Your task to perform on an android device: Go to Wikipedia Image 0: 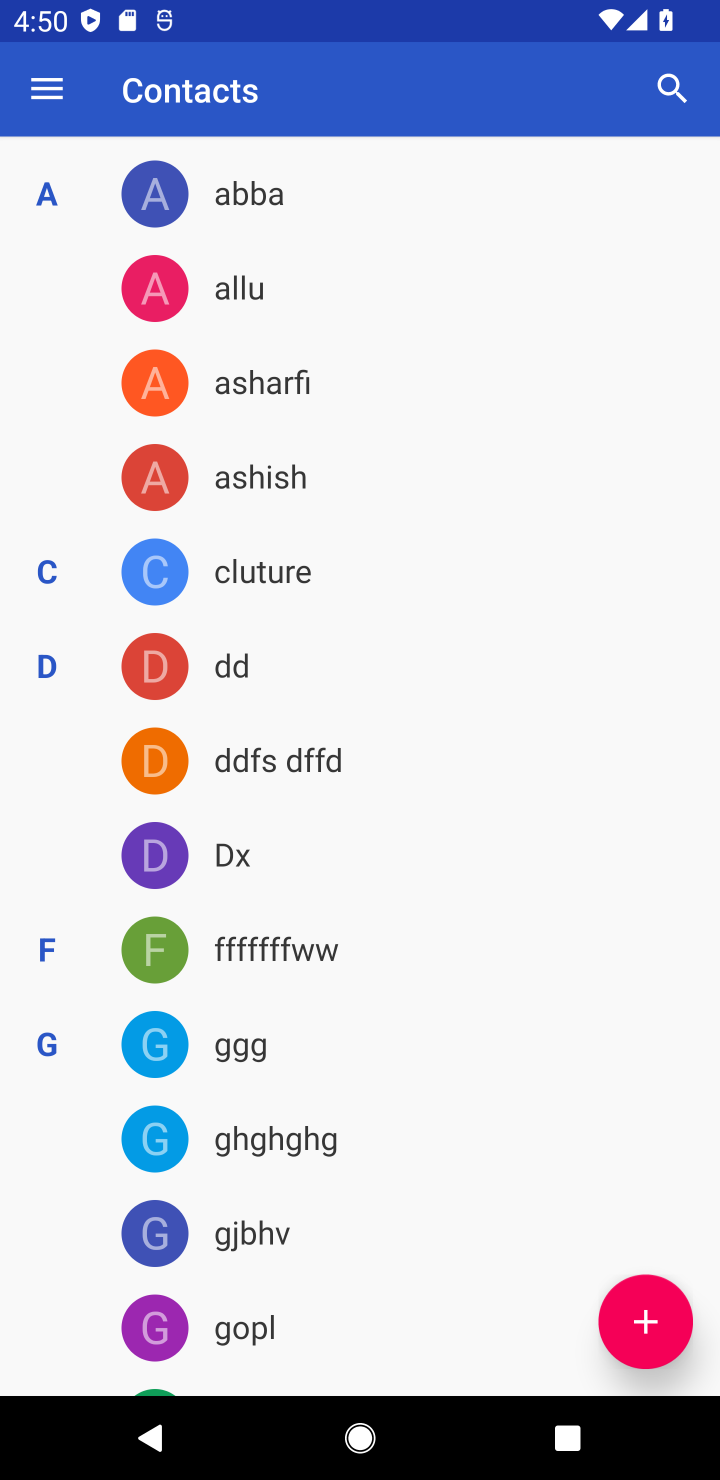
Step 0: press home button
Your task to perform on an android device: Go to Wikipedia Image 1: 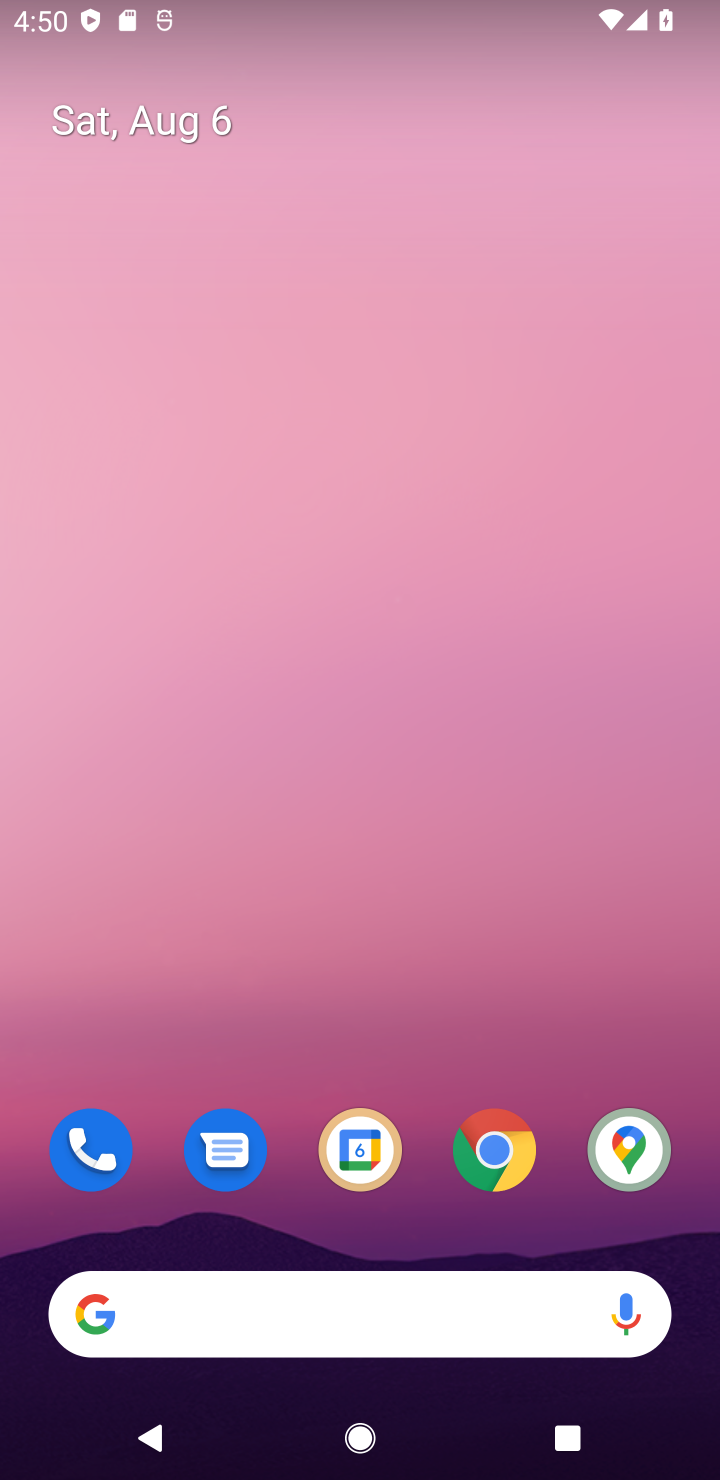
Step 1: click (476, 1152)
Your task to perform on an android device: Go to Wikipedia Image 2: 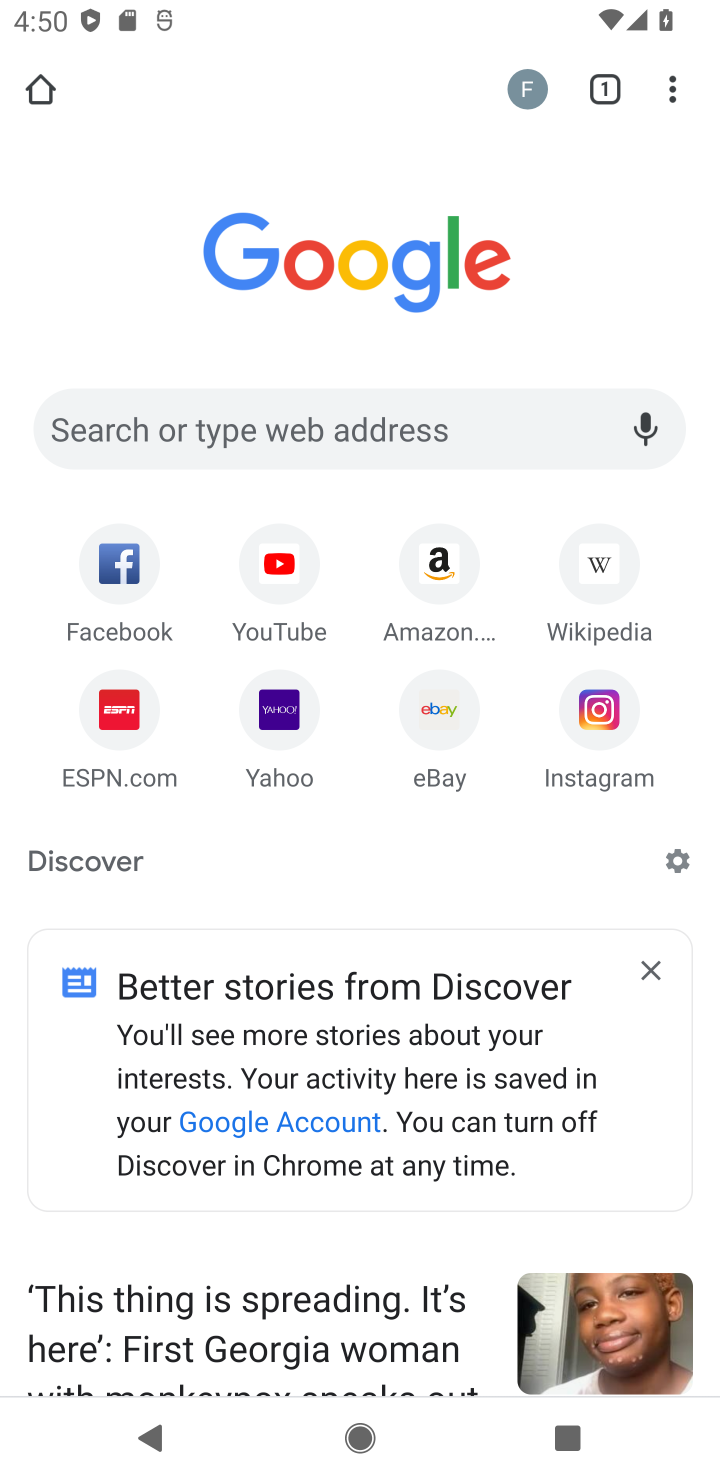
Step 2: click (599, 590)
Your task to perform on an android device: Go to Wikipedia Image 3: 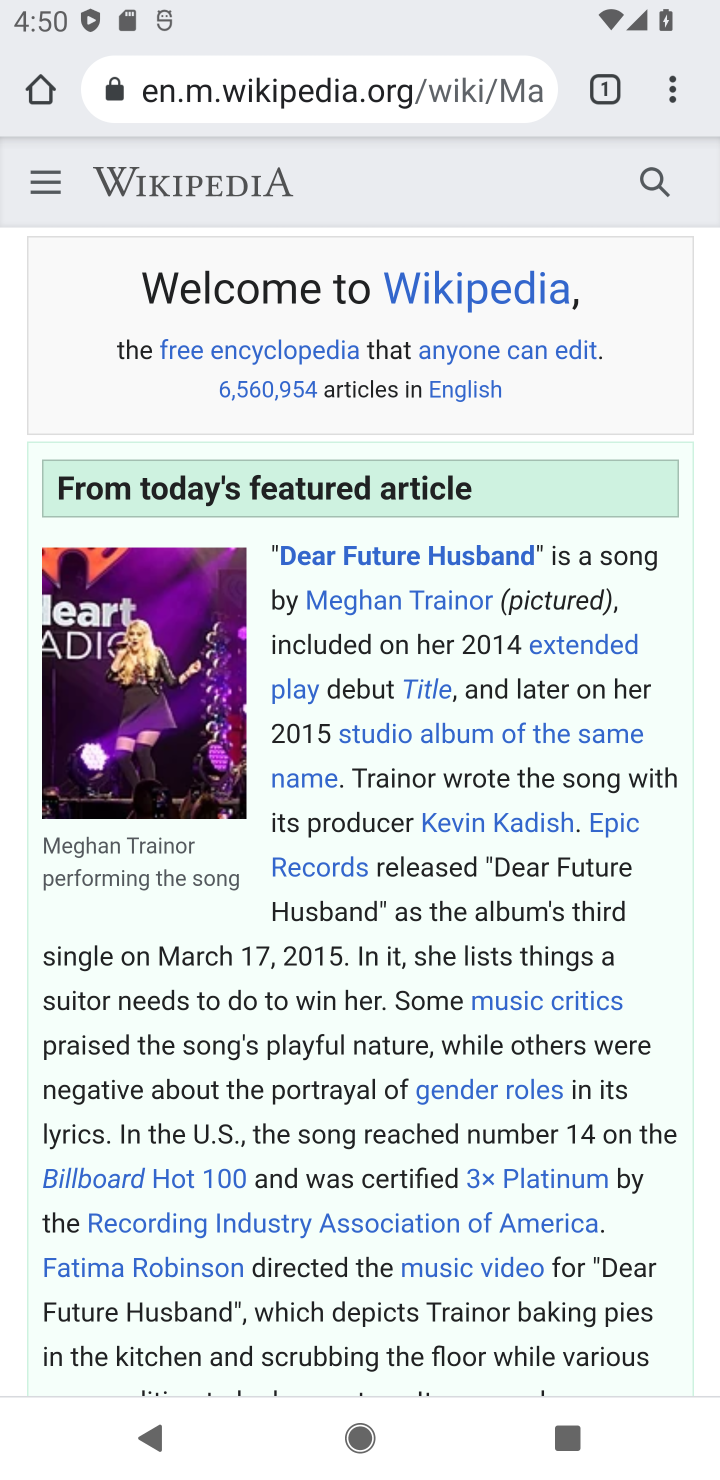
Step 3: task complete